Your task to perform on an android device: Open the Play Movies app and select the watchlist tab. Image 0: 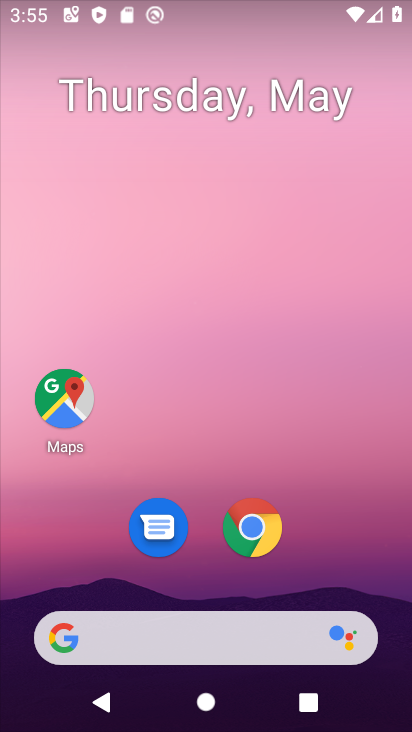
Step 0: drag from (386, 595) to (377, 118)
Your task to perform on an android device: Open the Play Movies app and select the watchlist tab. Image 1: 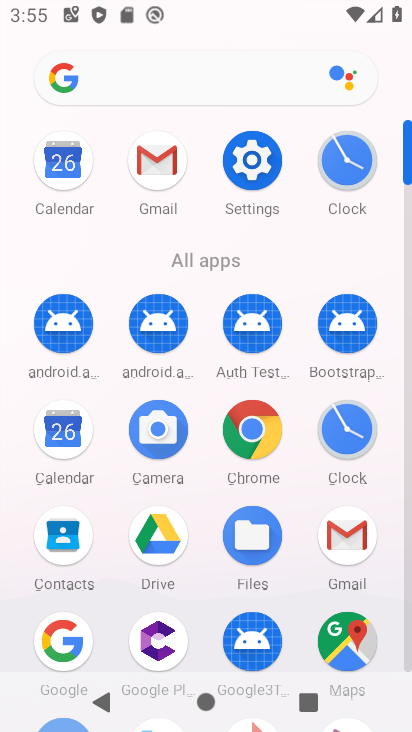
Step 1: click (404, 648)
Your task to perform on an android device: Open the Play Movies app and select the watchlist tab. Image 2: 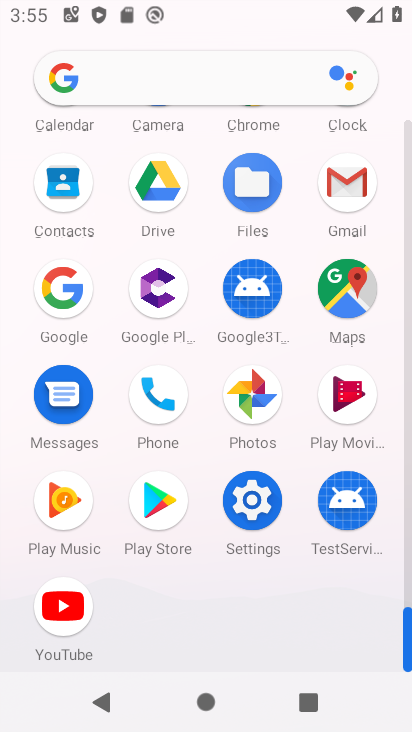
Step 2: click (346, 407)
Your task to perform on an android device: Open the Play Movies app and select the watchlist tab. Image 3: 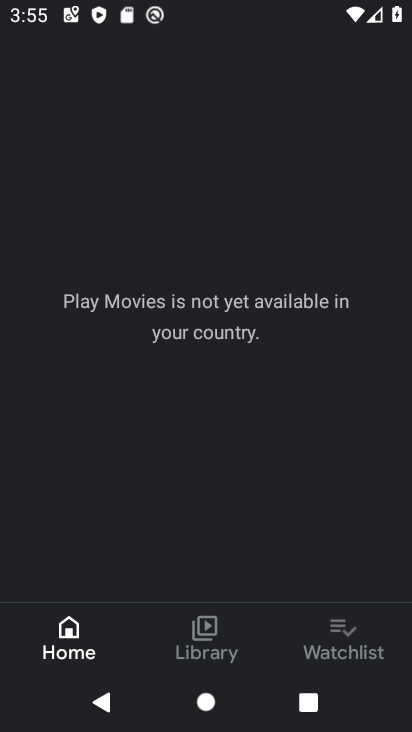
Step 3: click (351, 625)
Your task to perform on an android device: Open the Play Movies app and select the watchlist tab. Image 4: 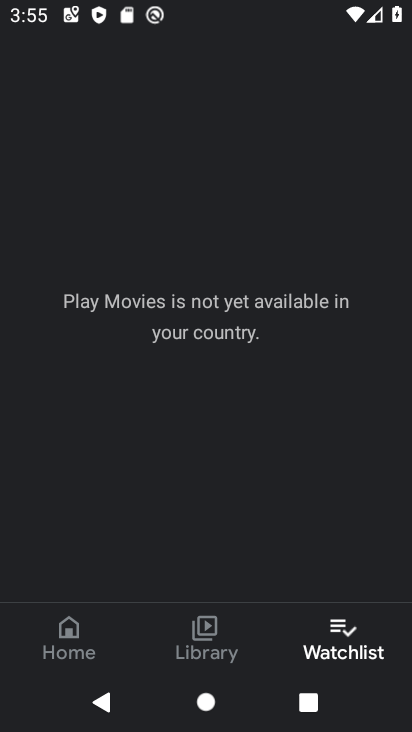
Step 4: task complete